Your task to perform on an android device: open app "Pinterest" (install if not already installed) and go to login screen Image 0: 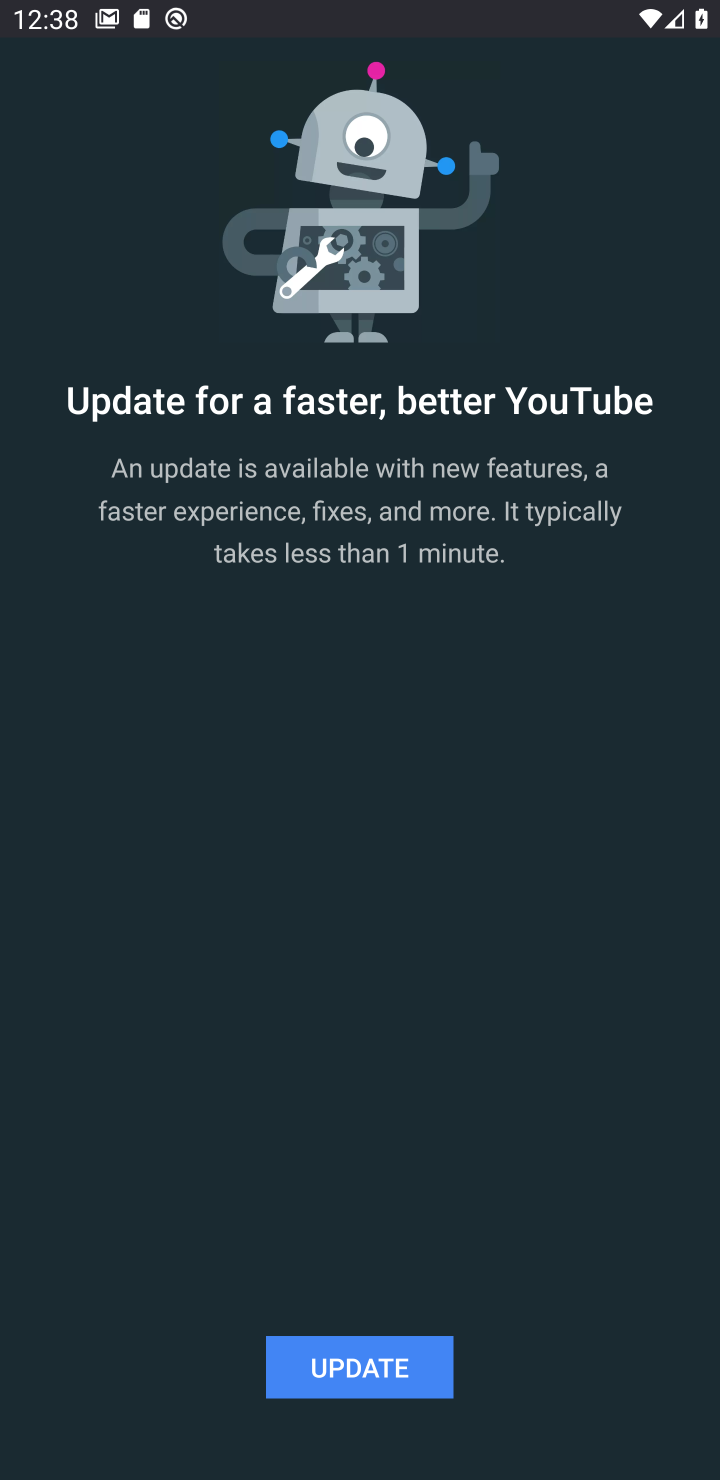
Step 0: press home button
Your task to perform on an android device: open app "Pinterest" (install if not already installed) and go to login screen Image 1: 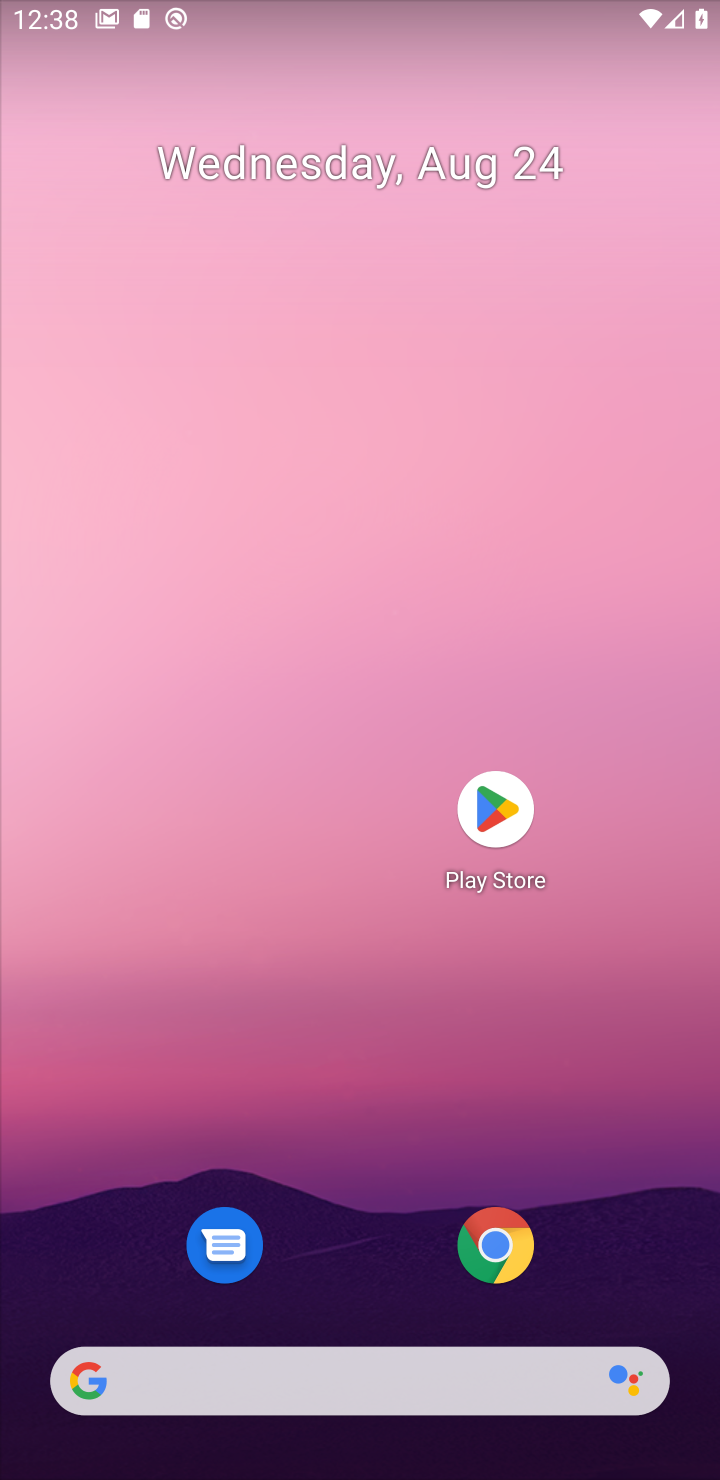
Step 1: click (489, 806)
Your task to perform on an android device: open app "Pinterest" (install if not already installed) and go to login screen Image 2: 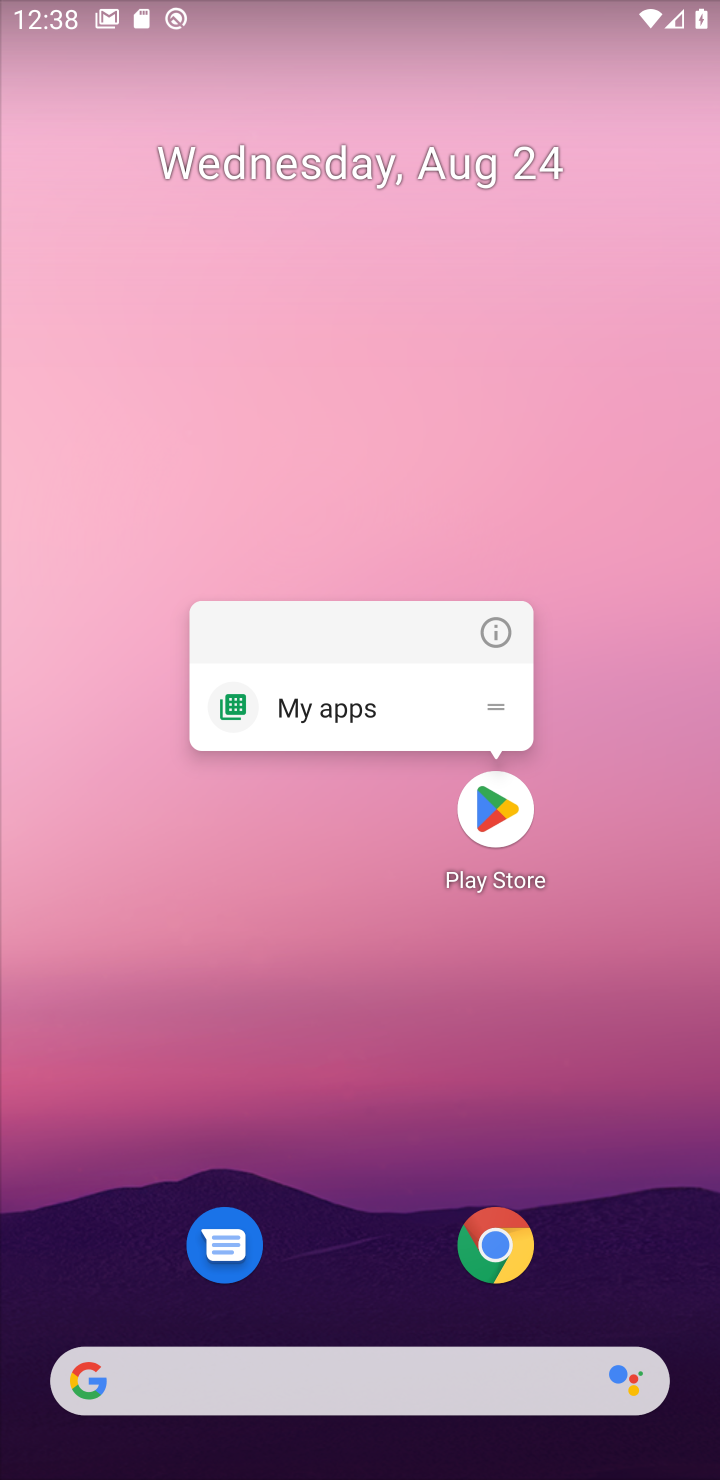
Step 2: click (499, 809)
Your task to perform on an android device: open app "Pinterest" (install if not already installed) and go to login screen Image 3: 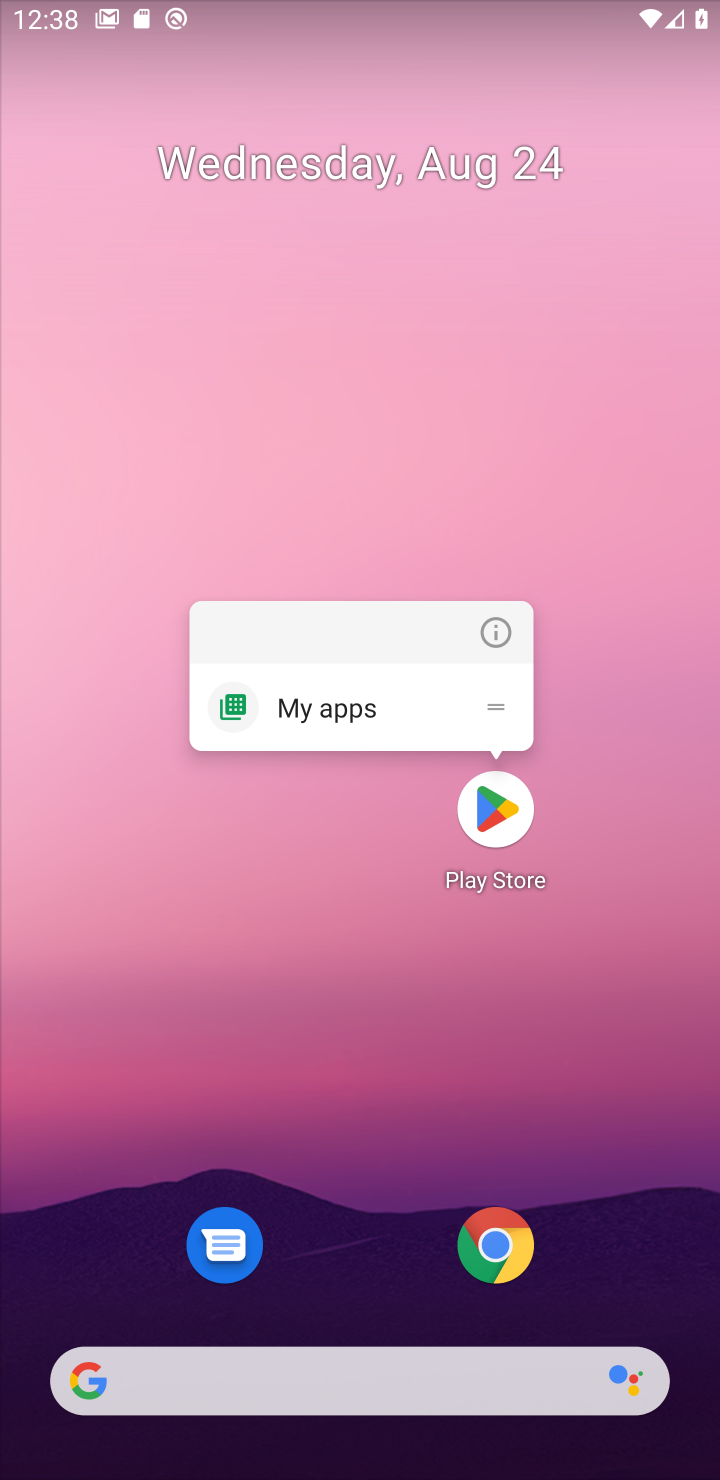
Step 3: click (499, 808)
Your task to perform on an android device: open app "Pinterest" (install if not already installed) and go to login screen Image 4: 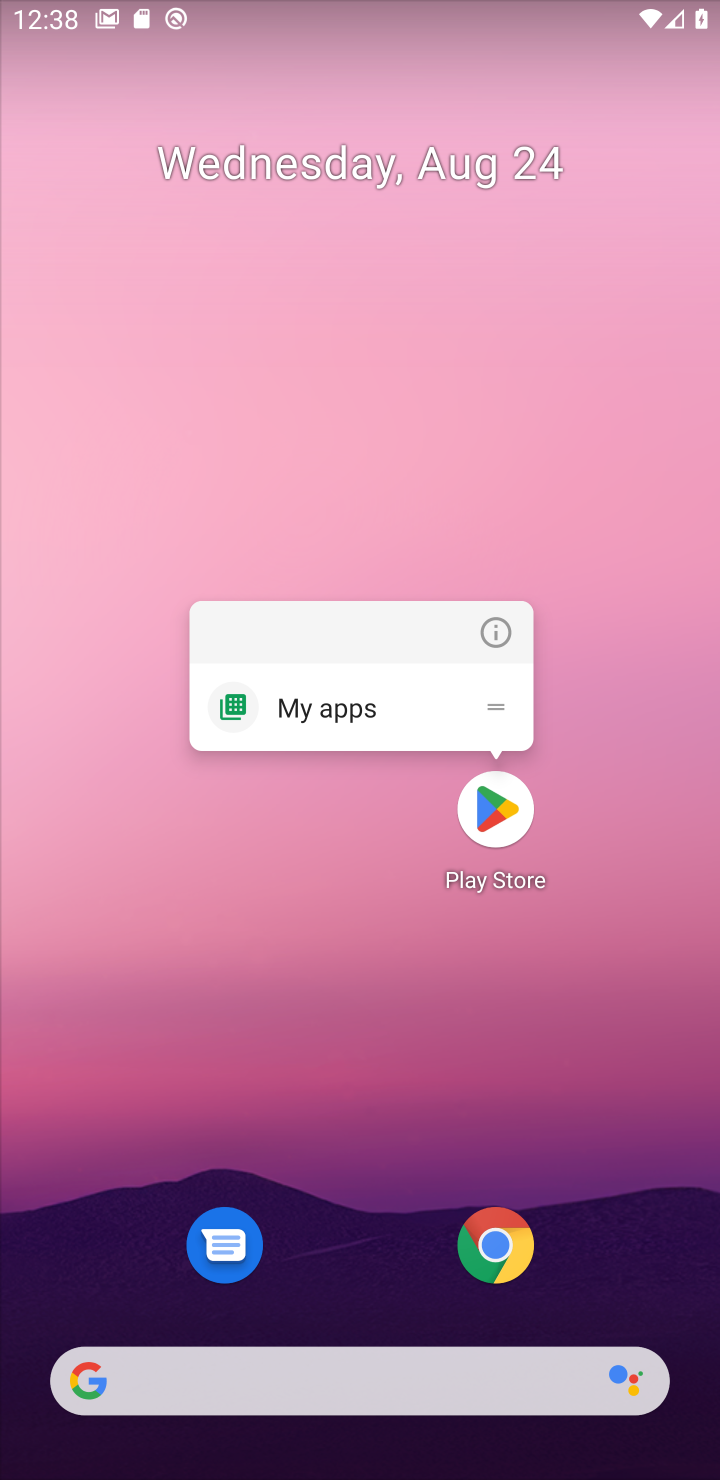
Step 4: click (499, 807)
Your task to perform on an android device: open app "Pinterest" (install if not already installed) and go to login screen Image 5: 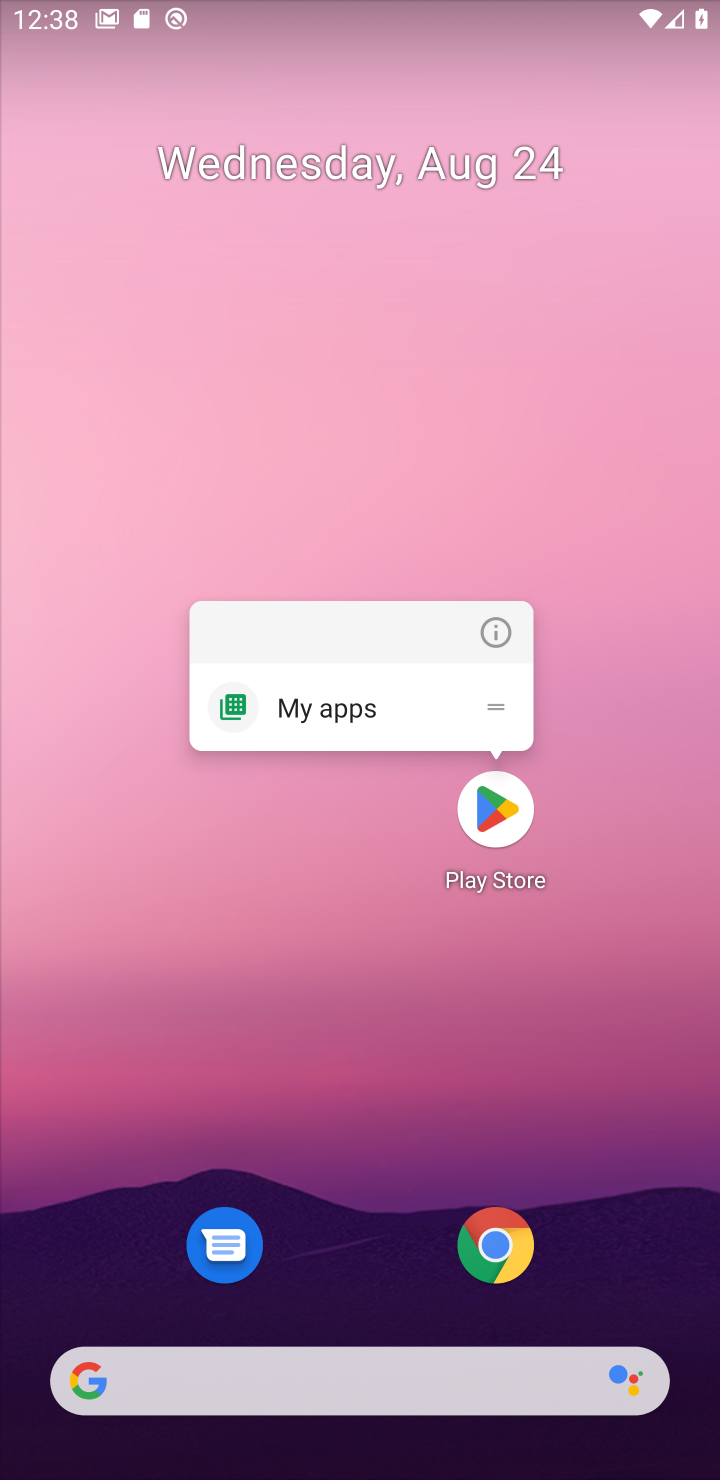
Step 5: click (495, 808)
Your task to perform on an android device: open app "Pinterest" (install if not already installed) and go to login screen Image 6: 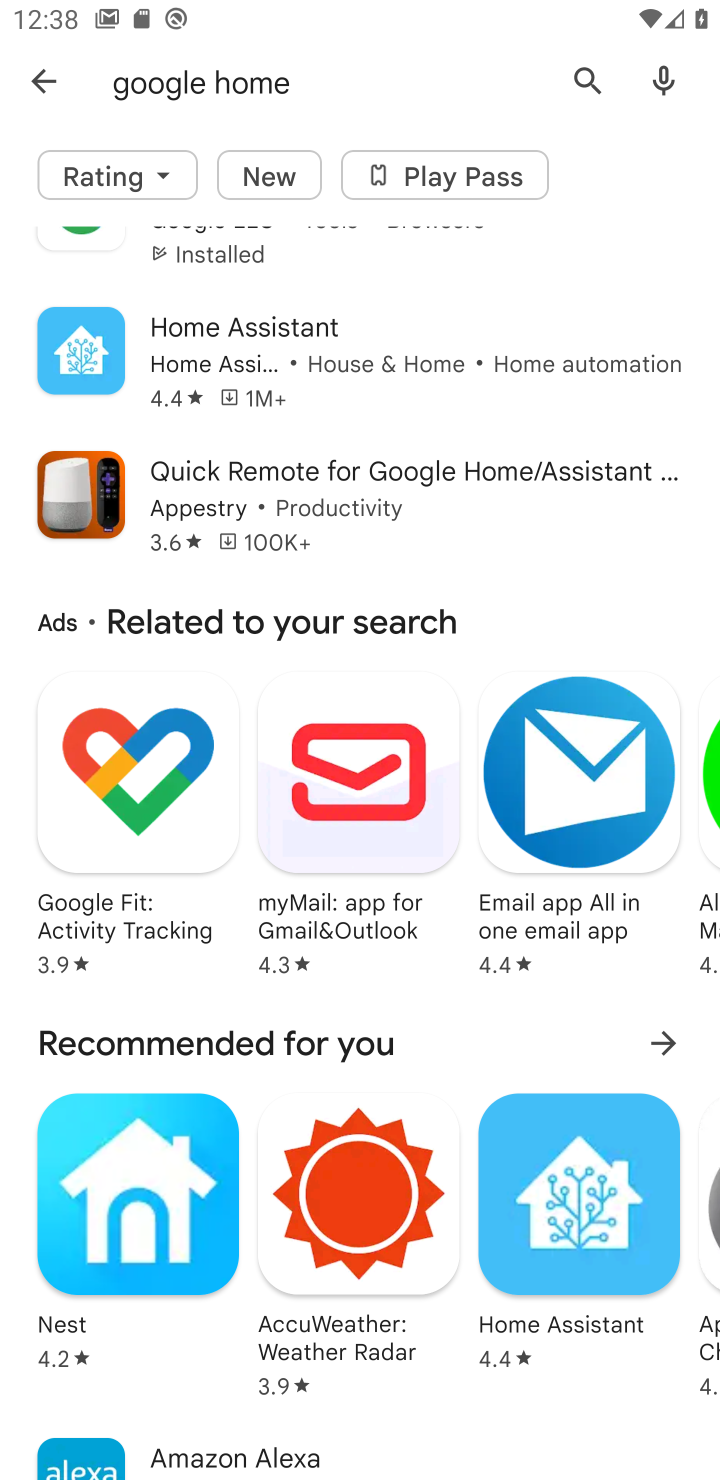
Step 6: click (584, 74)
Your task to perform on an android device: open app "Pinterest" (install if not already installed) and go to login screen Image 7: 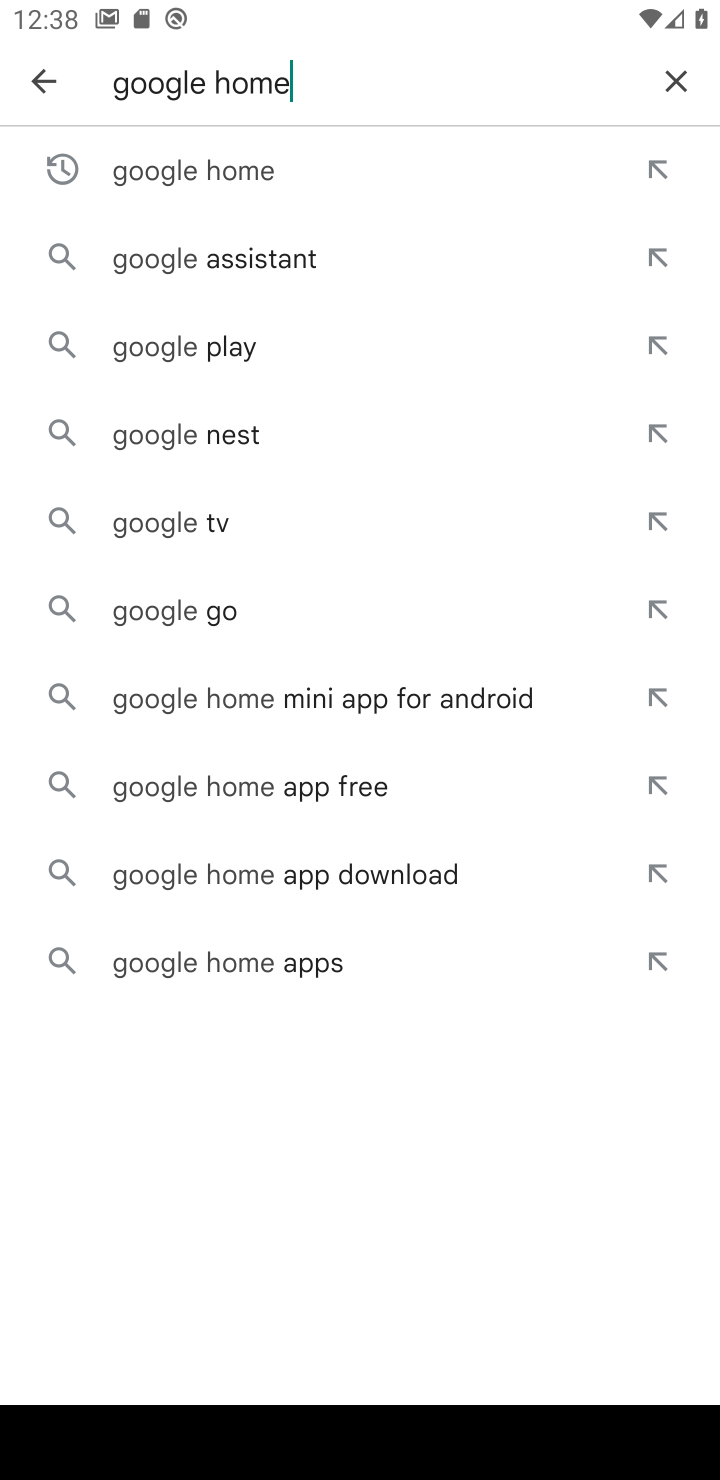
Step 7: click (668, 76)
Your task to perform on an android device: open app "Pinterest" (install if not already installed) and go to login screen Image 8: 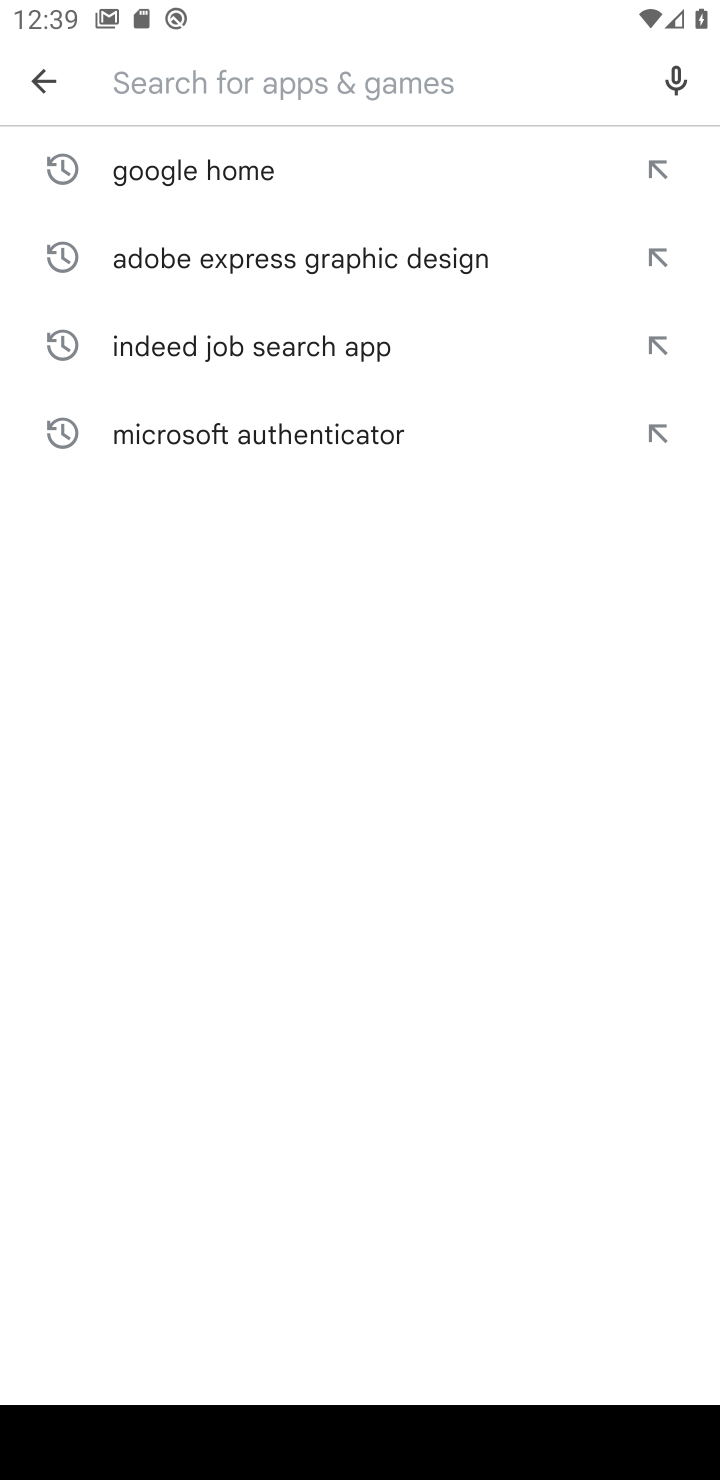
Step 8: type "Pinterest"
Your task to perform on an android device: open app "Pinterest" (install if not already installed) and go to login screen Image 9: 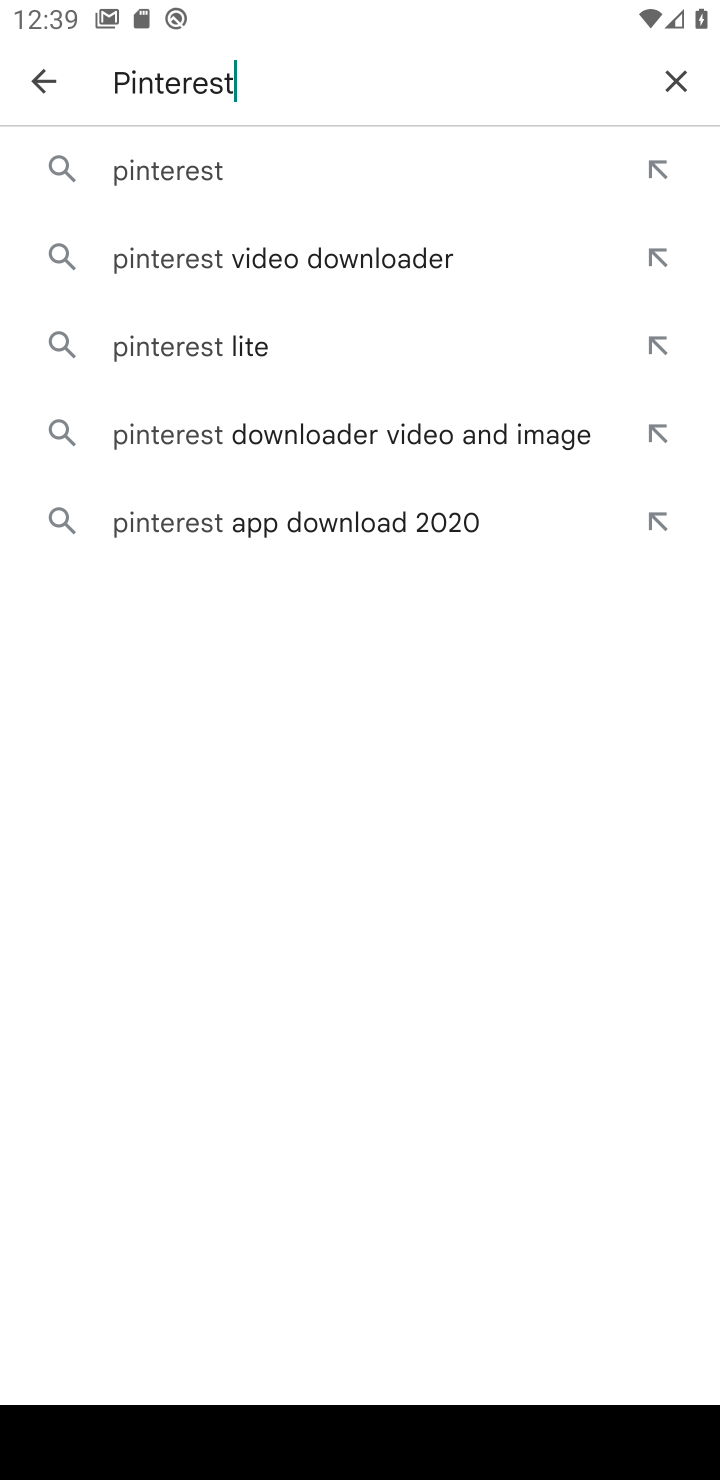
Step 9: click (143, 164)
Your task to perform on an android device: open app "Pinterest" (install if not already installed) and go to login screen Image 10: 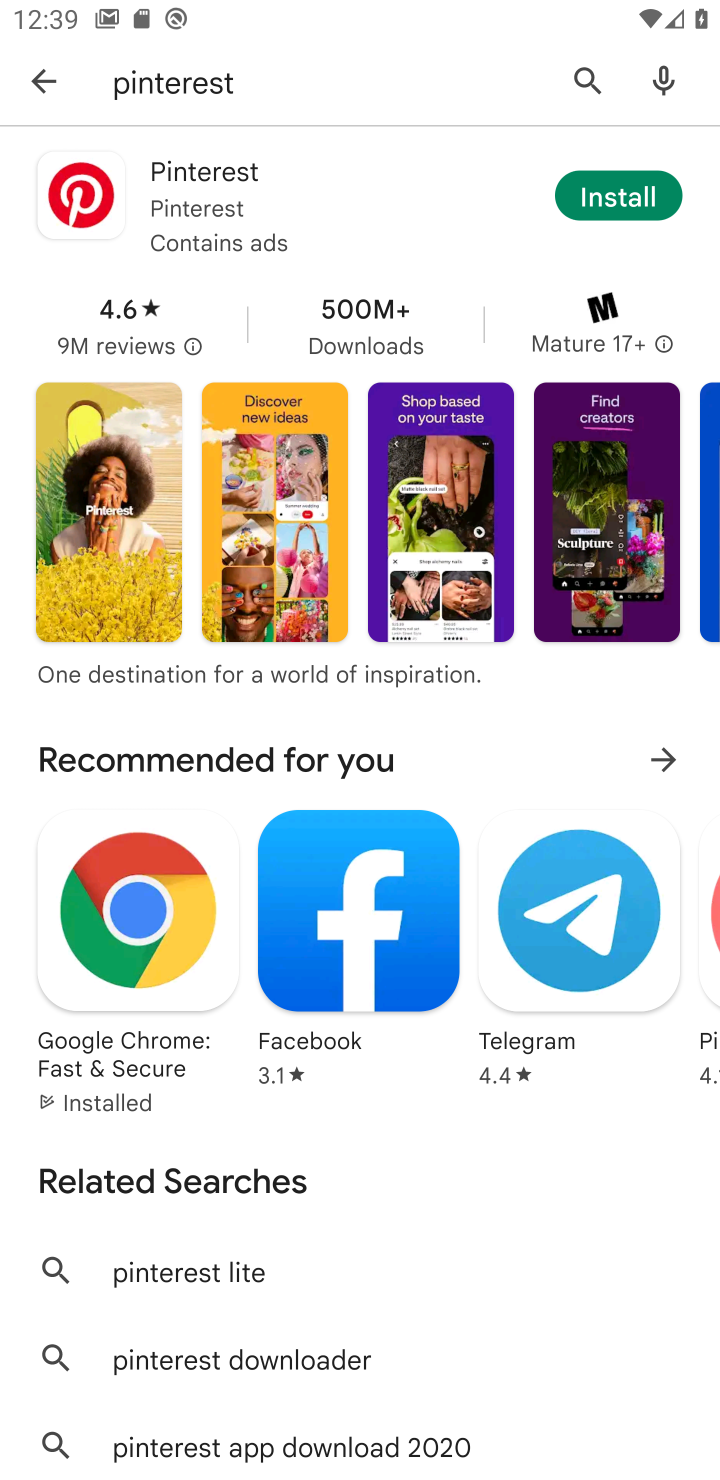
Step 10: click (630, 198)
Your task to perform on an android device: open app "Pinterest" (install if not already installed) and go to login screen Image 11: 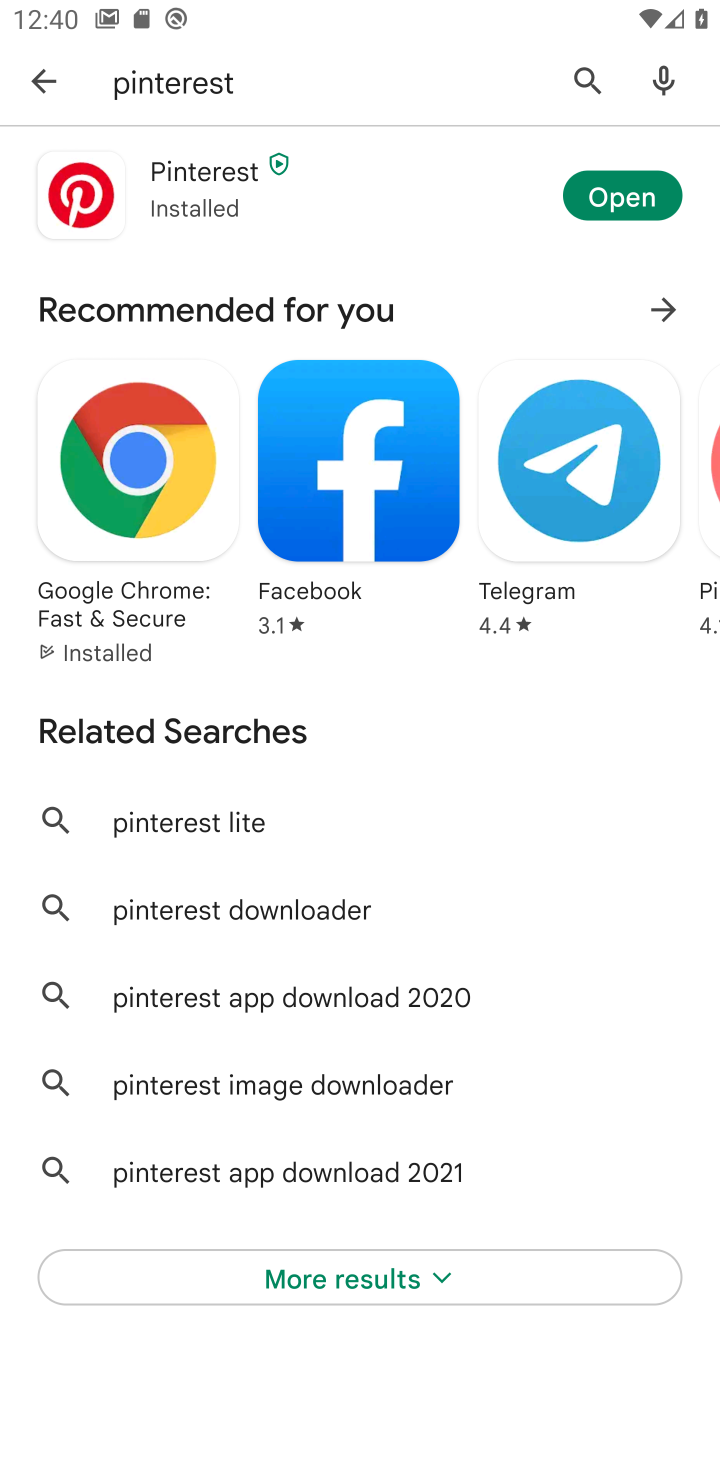
Step 11: click (609, 191)
Your task to perform on an android device: open app "Pinterest" (install if not already installed) and go to login screen Image 12: 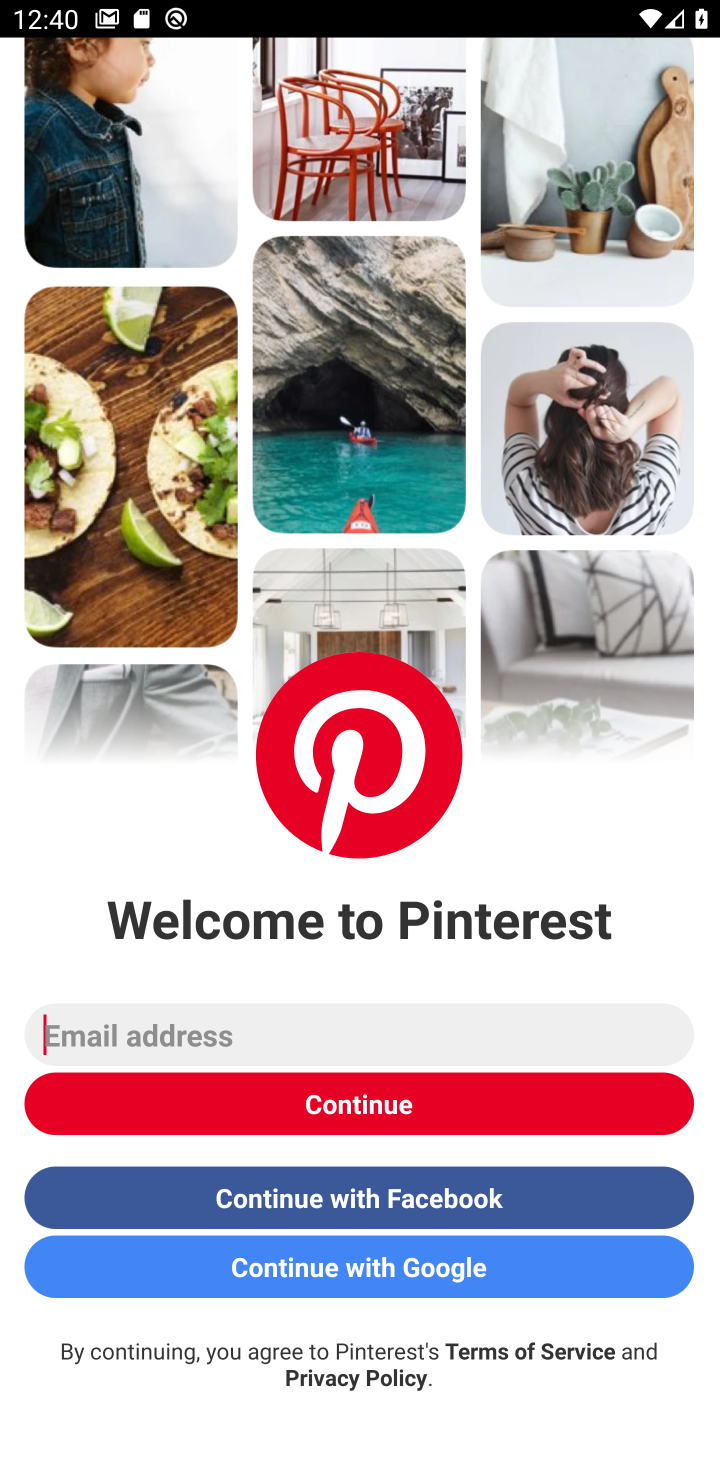
Step 12: task complete